Your task to perform on an android device: When is my next appointment? Image 0: 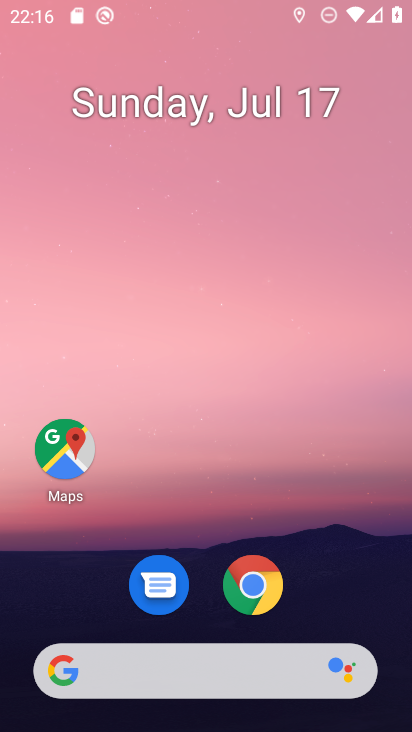
Step 0: press home button
Your task to perform on an android device: When is my next appointment? Image 1: 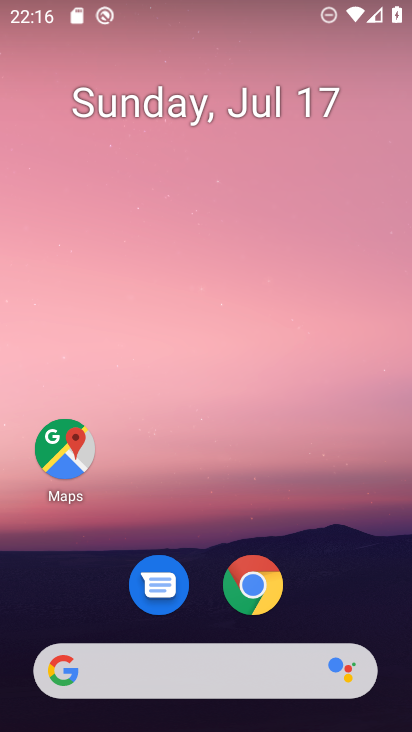
Step 1: drag from (172, 638) to (280, 122)
Your task to perform on an android device: When is my next appointment? Image 2: 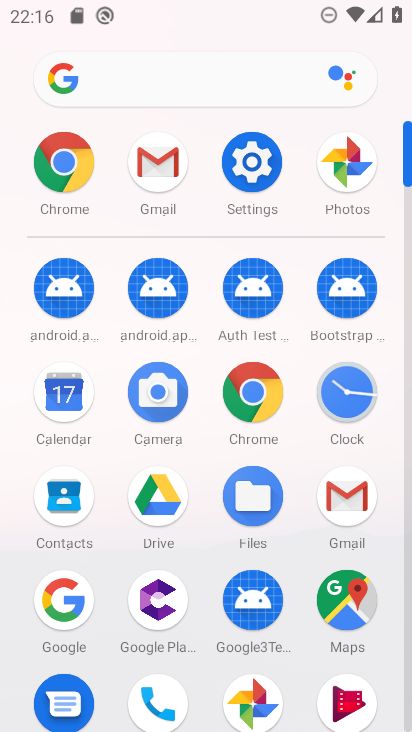
Step 2: click (65, 395)
Your task to perform on an android device: When is my next appointment? Image 3: 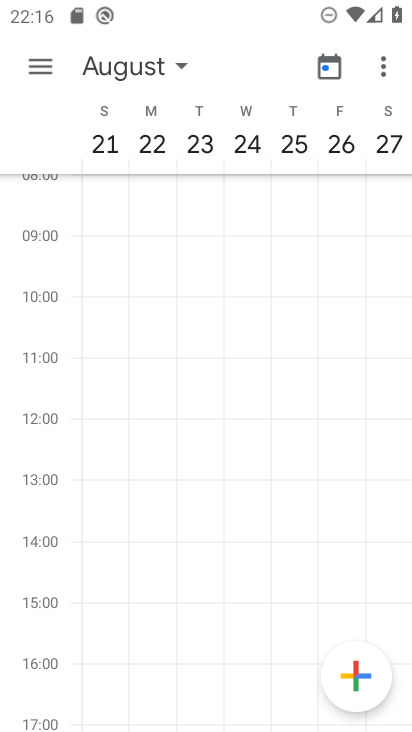
Step 3: click (92, 67)
Your task to perform on an android device: When is my next appointment? Image 4: 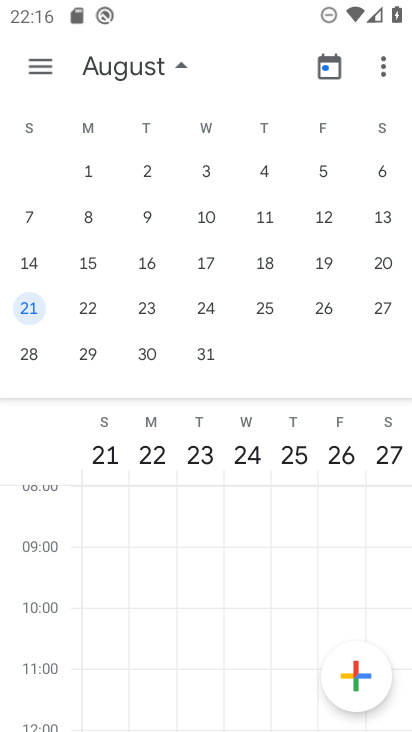
Step 4: drag from (64, 312) to (411, 307)
Your task to perform on an android device: When is my next appointment? Image 5: 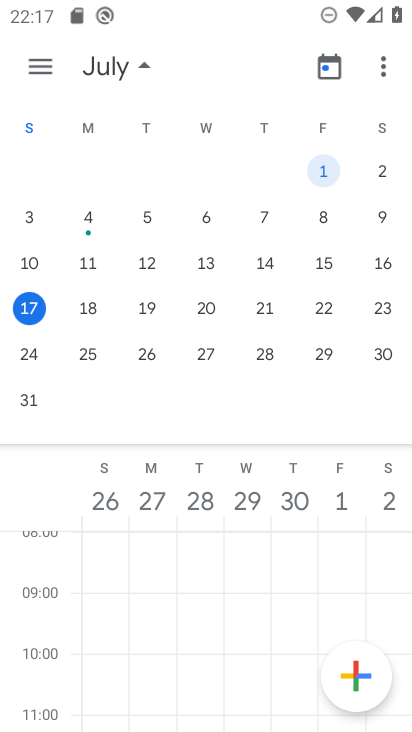
Step 5: click (36, 312)
Your task to perform on an android device: When is my next appointment? Image 6: 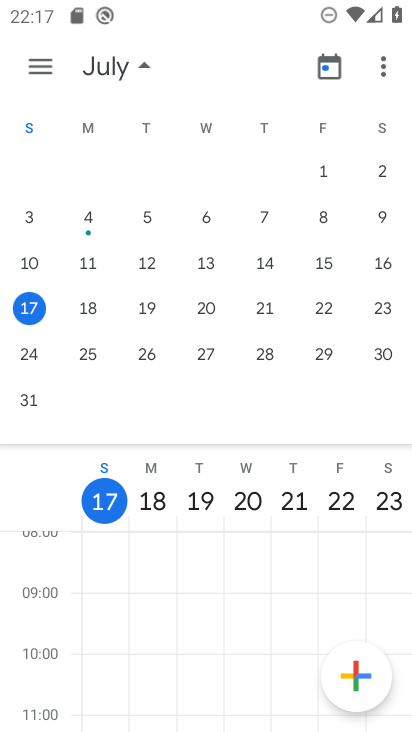
Step 6: click (37, 71)
Your task to perform on an android device: When is my next appointment? Image 7: 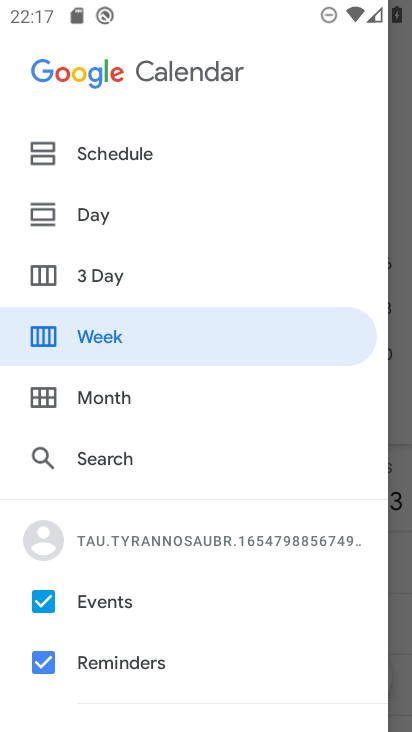
Step 7: click (129, 154)
Your task to perform on an android device: When is my next appointment? Image 8: 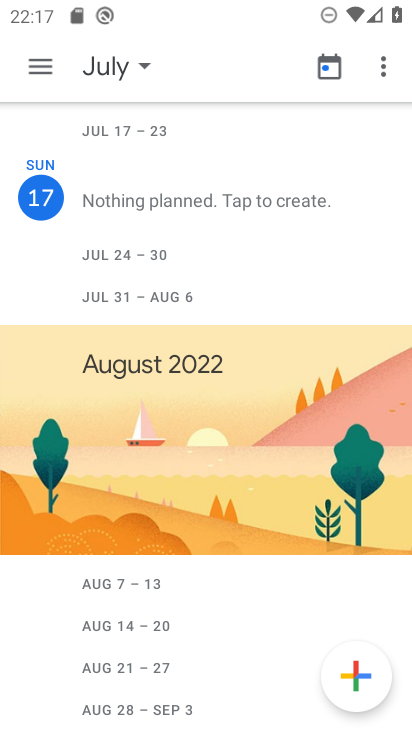
Step 8: task complete